Your task to perform on an android device: toggle translation in the chrome app Image 0: 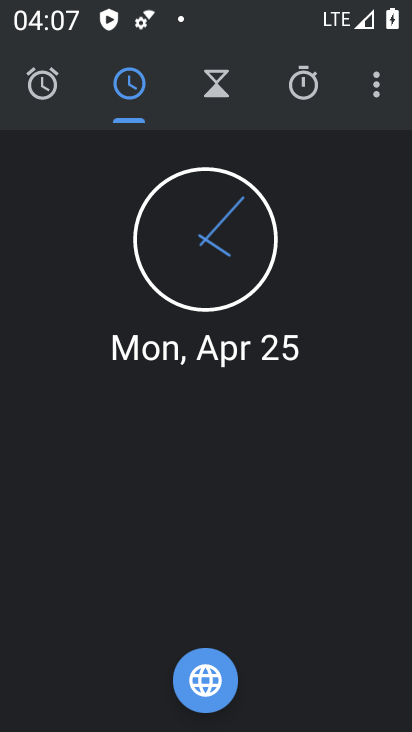
Step 0: drag from (376, 86) to (202, 402)
Your task to perform on an android device: toggle translation in the chrome app Image 1: 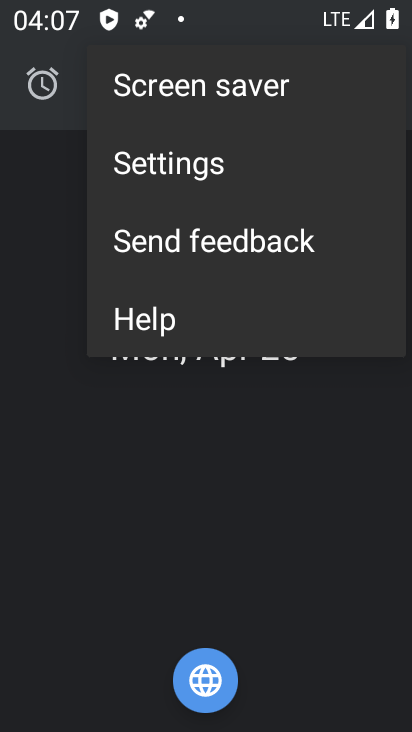
Step 1: click (226, 167)
Your task to perform on an android device: toggle translation in the chrome app Image 2: 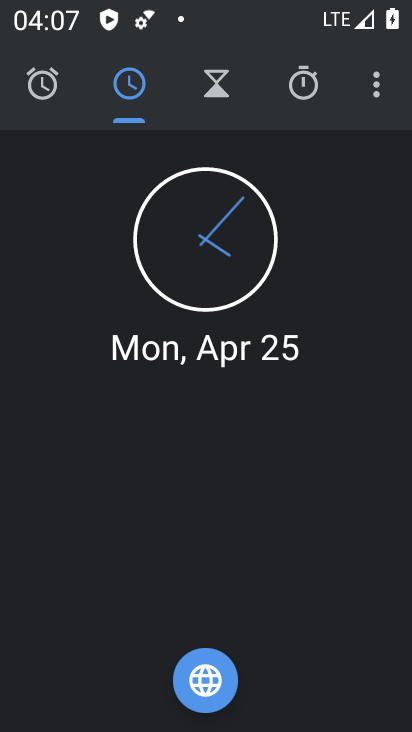
Step 2: click (378, 80)
Your task to perform on an android device: toggle translation in the chrome app Image 3: 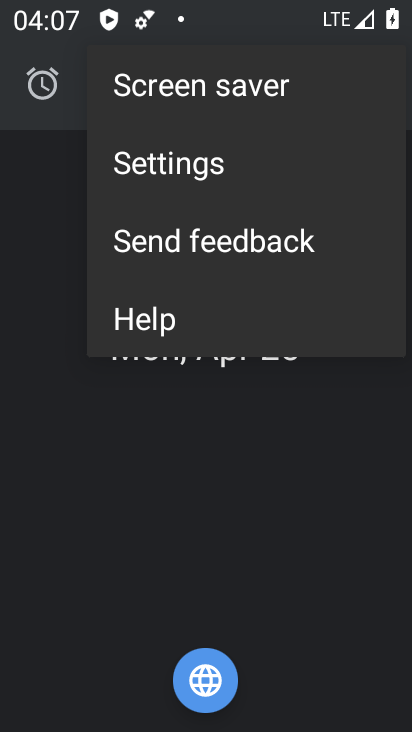
Step 3: press back button
Your task to perform on an android device: toggle translation in the chrome app Image 4: 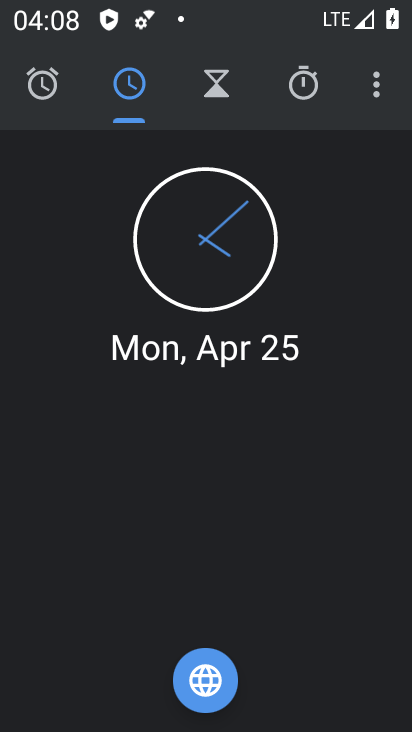
Step 4: press back button
Your task to perform on an android device: toggle translation in the chrome app Image 5: 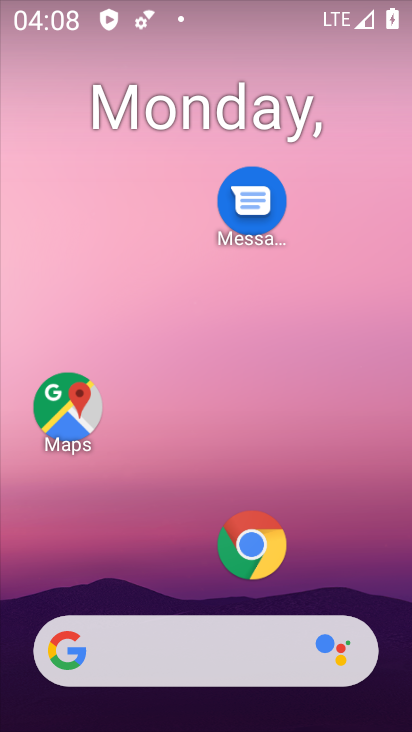
Step 5: click (245, 551)
Your task to perform on an android device: toggle translation in the chrome app Image 6: 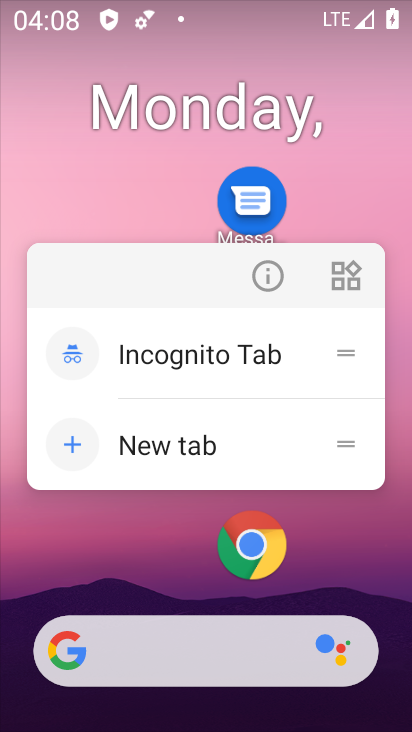
Step 6: click (265, 535)
Your task to perform on an android device: toggle translation in the chrome app Image 7: 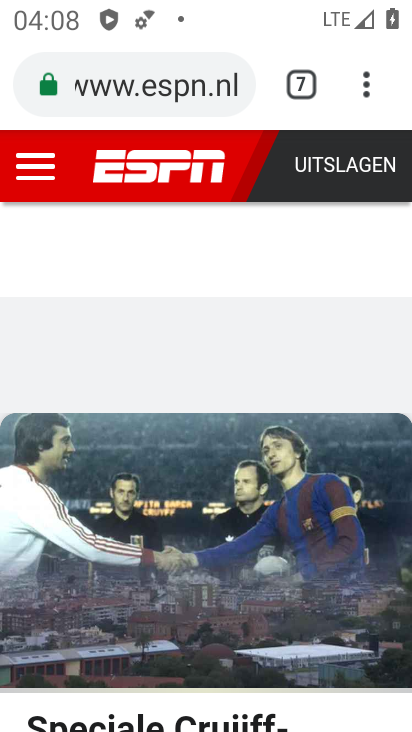
Step 7: drag from (364, 83) to (105, 604)
Your task to perform on an android device: toggle translation in the chrome app Image 8: 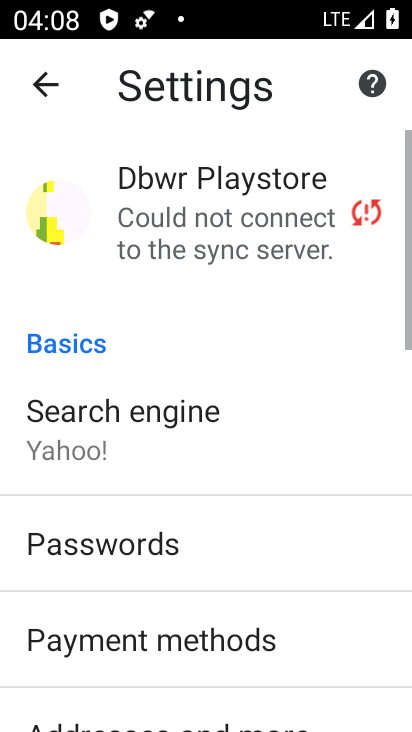
Step 8: drag from (139, 633) to (276, 114)
Your task to perform on an android device: toggle translation in the chrome app Image 9: 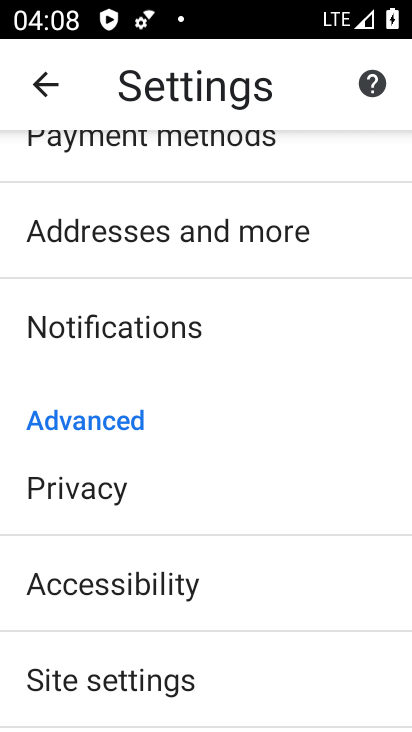
Step 9: click (121, 673)
Your task to perform on an android device: toggle translation in the chrome app Image 10: 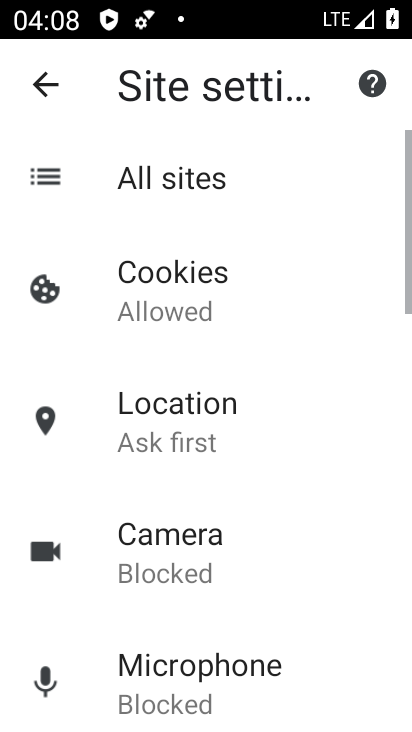
Step 10: click (30, 71)
Your task to perform on an android device: toggle translation in the chrome app Image 11: 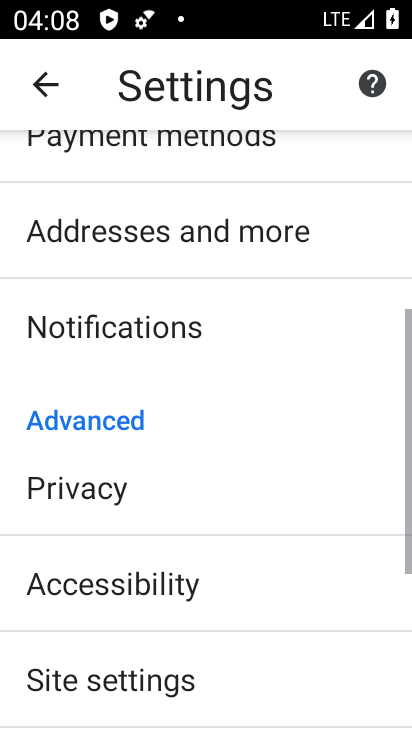
Step 11: drag from (122, 637) to (260, 169)
Your task to perform on an android device: toggle translation in the chrome app Image 12: 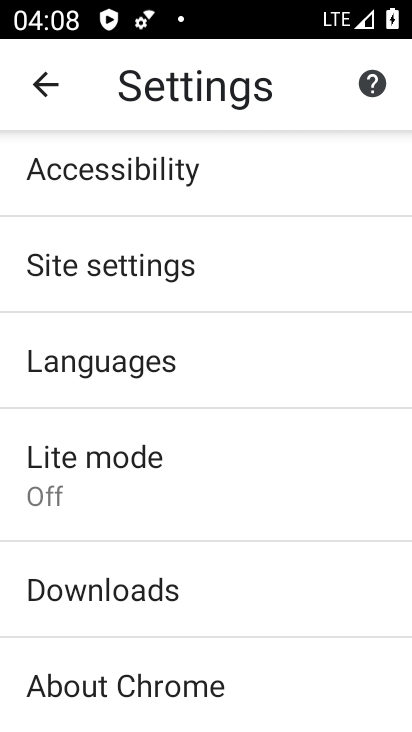
Step 12: click (65, 365)
Your task to perform on an android device: toggle translation in the chrome app Image 13: 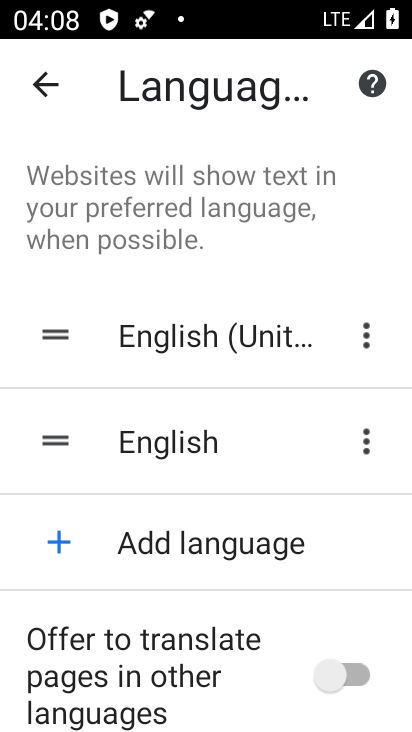
Step 13: click (343, 674)
Your task to perform on an android device: toggle translation in the chrome app Image 14: 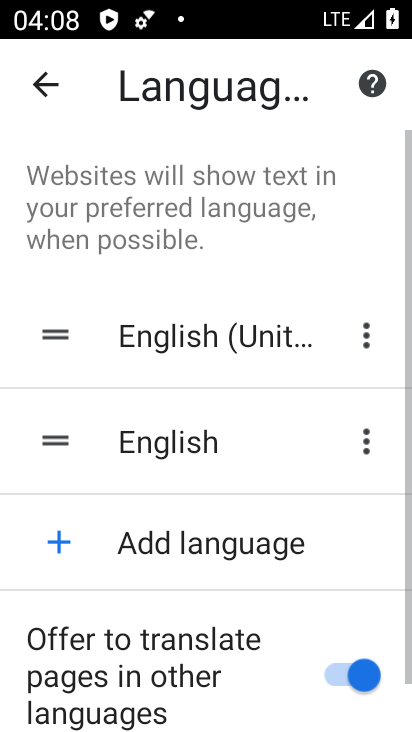
Step 14: task complete